Your task to perform on an android device: When is my next meeting? Image 0: 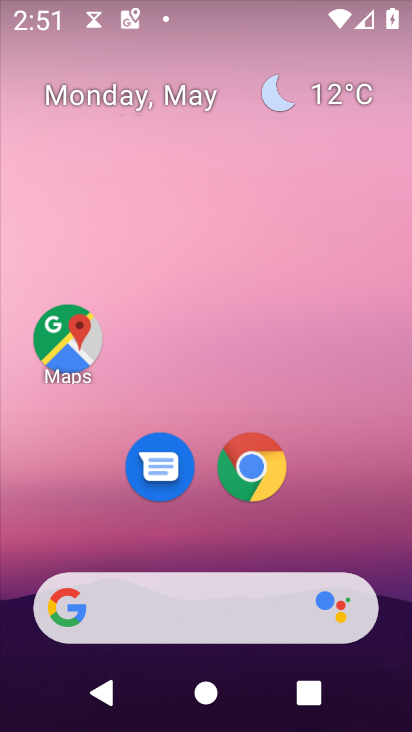
Step 0: drag from (402, 590) to (336, 272)
Your task to perform on an android device: When is my next meeting? Image 1: 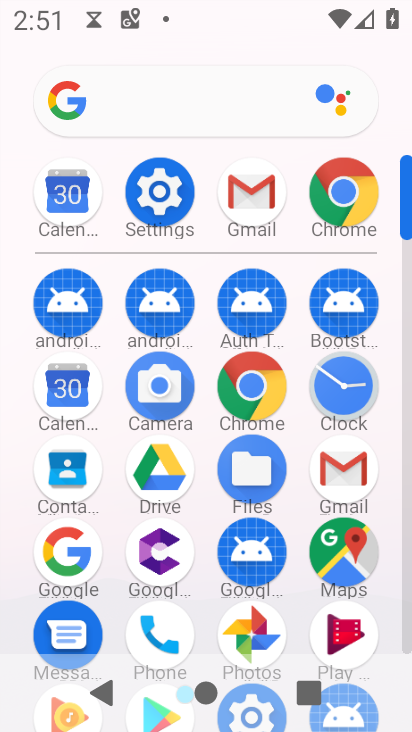
Step 1: click (70, 199)
Your task to perform on an android device: When is my next meeting? Image 2: 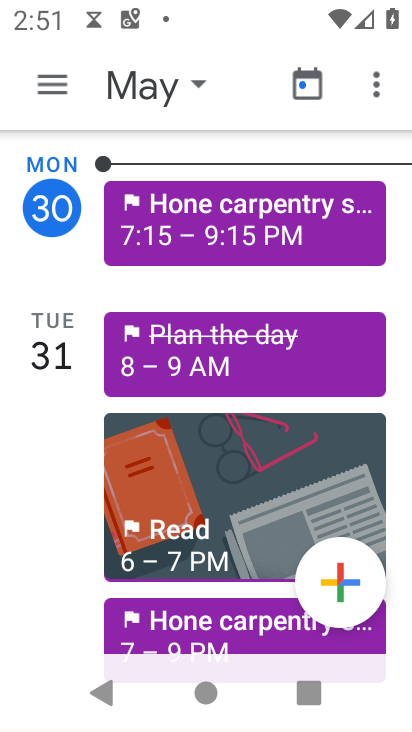
Step 2: task complete